Your task to perform on an android device: turn off airplane mode Image 0: 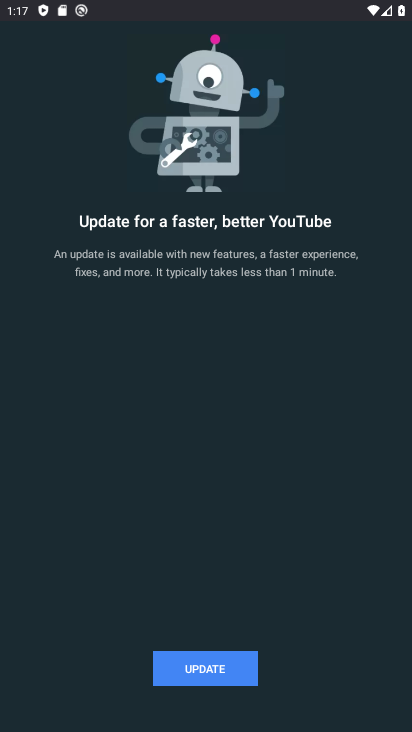
Step 0: press back button
Your task to perform on an android device: turn off airplane mode Image 1: 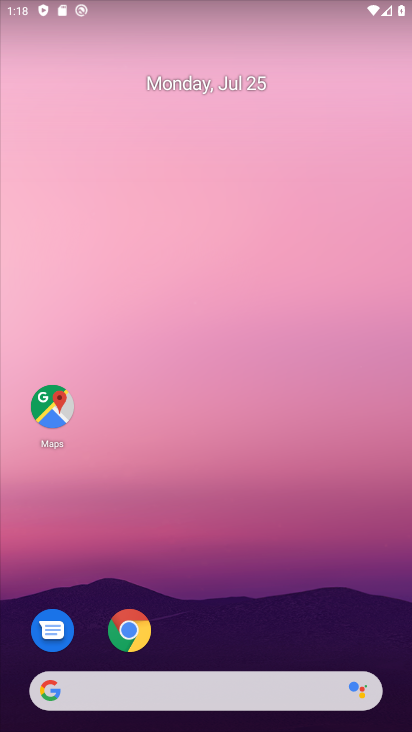
Step 1: drag from (295, 634) to (228, 214)
Your task to perform on an android device: turn off airplane mode Image 2: 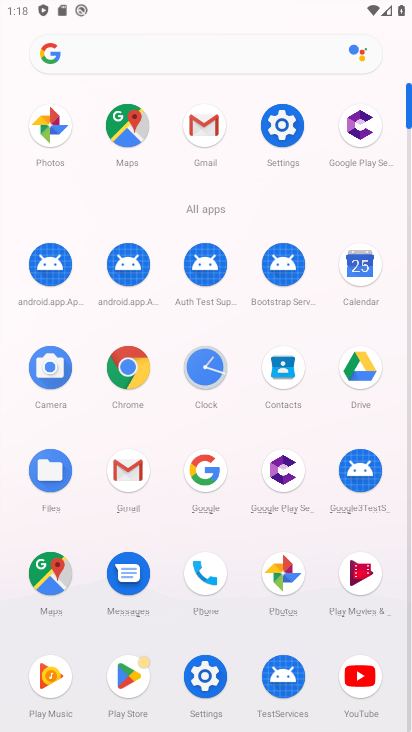
Step 2: click (271, 143)
Your task to perform on an android device: turn off airplane mode Image 3: 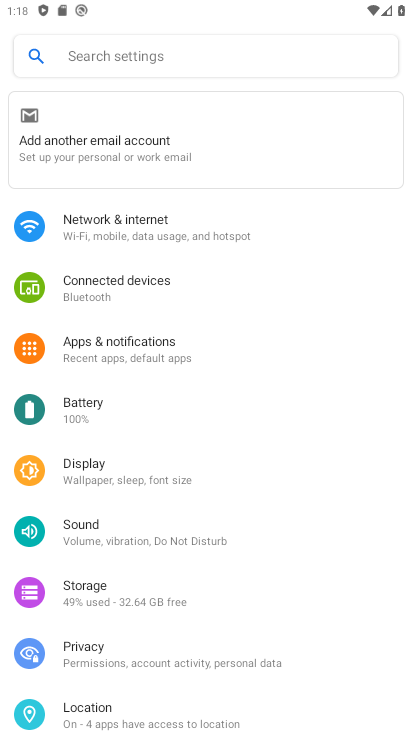
Step 3: task complete